Your task to perform on an android device: Open calendar and show me the second week of next month Image 0: 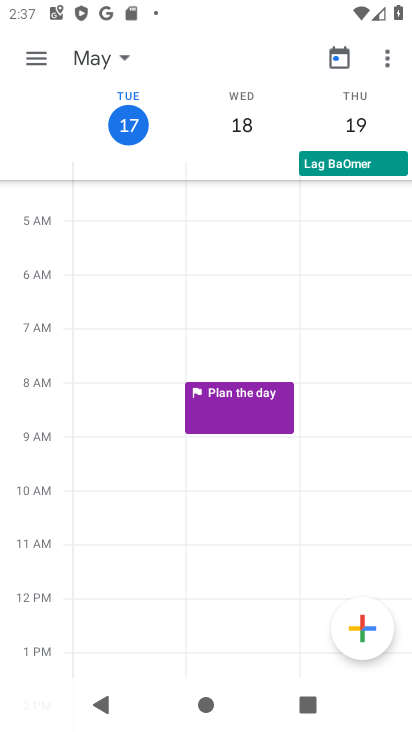
Step 0: click (32, 56)
Your task to perform on an android device: Open calendar and show me the second week of next month Image 1: 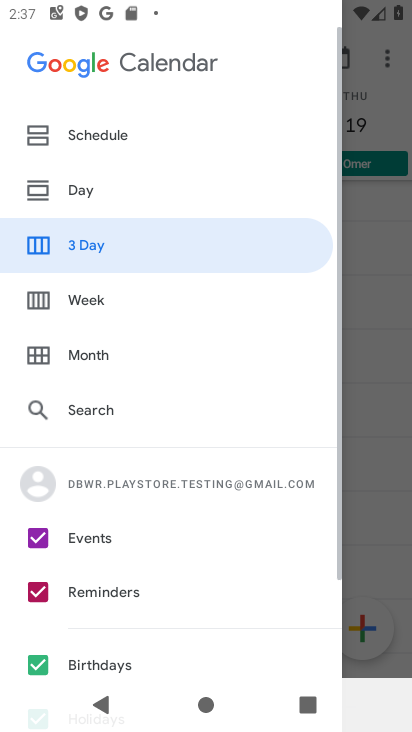
Step 1: click (104, 302)
Your task to perform on an android device: Open calendar and show me the second week of next month Image 2: 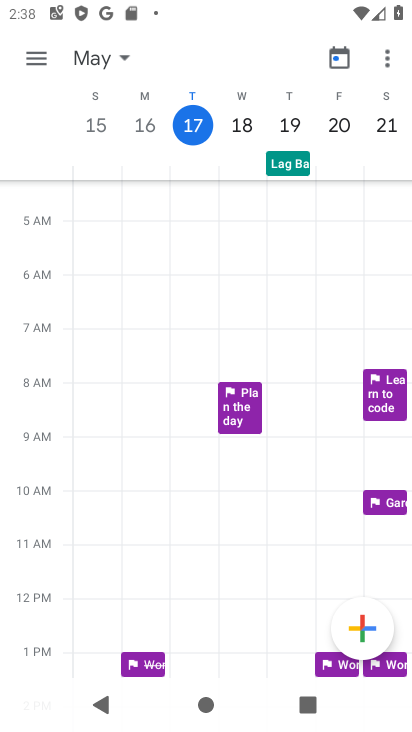
Step 2: task complete